Your task to perform on an android device: Open internet settings Image 0: 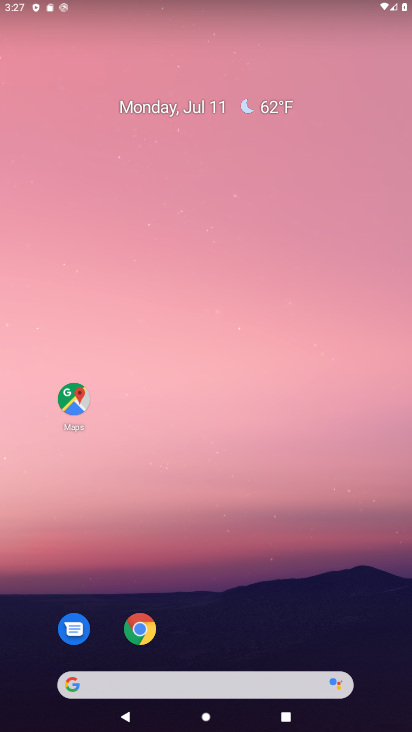
Step 0: drag from (216, 625) to (249, 203)
Your task to perform on an android device: Open internet settings Image 1: 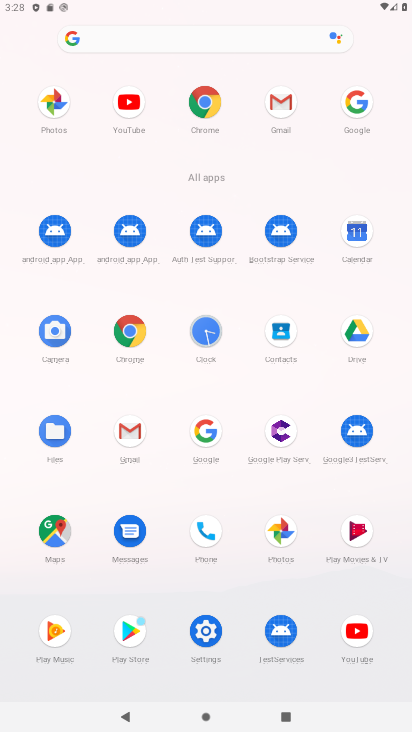
Step 1: click (195, 614)
Your task to perform on an android device: Open internet settings Image 2: 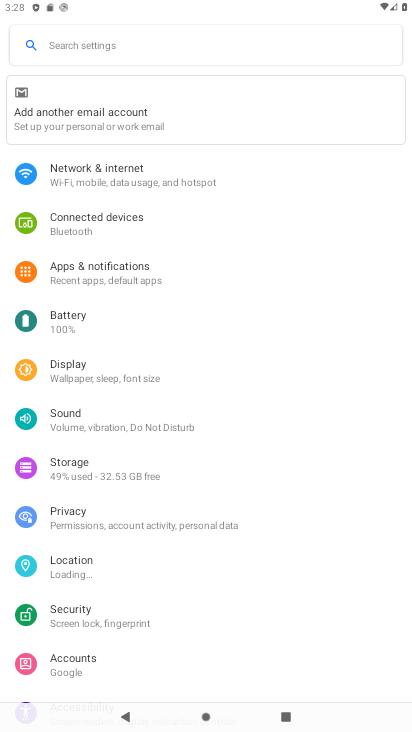
Step 2: click (152, 178)
Your task to perform on an android device: Open internet settings Image 3: 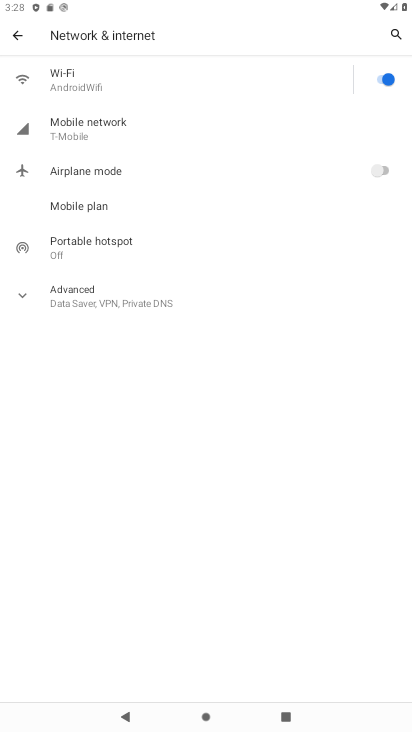
Step 3: click (136, 138)
Your task to perform on an android device: Open internet settings Image 4: 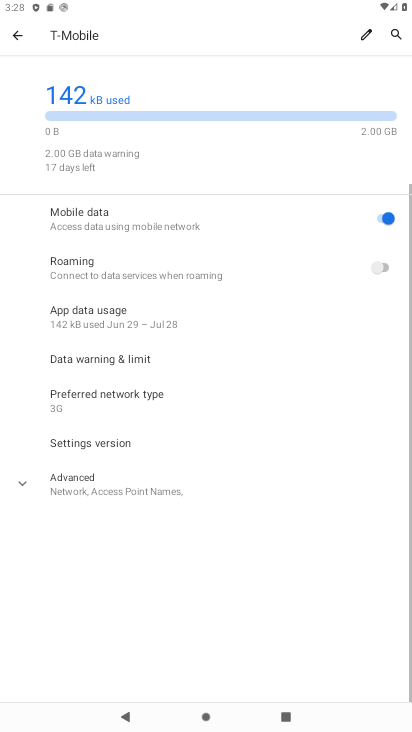
Step 4: task complete